Your task to perform on an android device: turn vacation reply on in the gmail app Image 0: 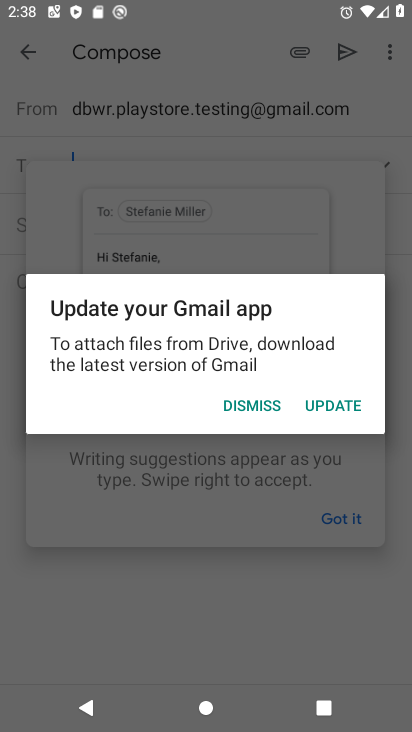
Step 0: press home button
Your task to perform on an android device: turn vacation reply on in the gmail app Image 1: 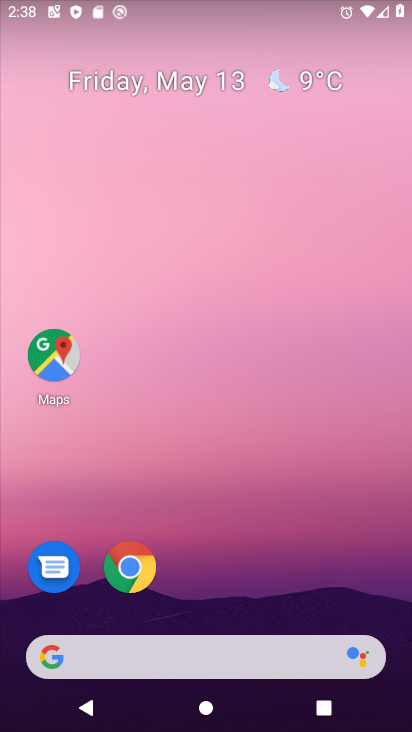
Step 1: drag from (219, 577) to (316, 57)
Your task to perform on an android device: turn vacation reply on in the gmail app Image 2: 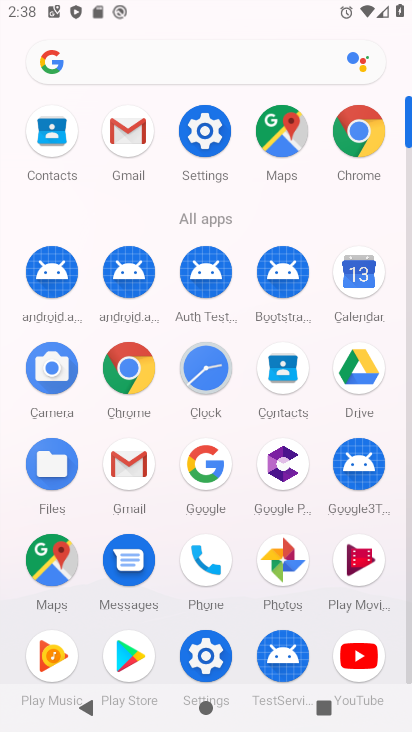
Step 2: click (135, 475)
Your task to perform on an android device: turn vacation reply on in the gmail app Image 3: 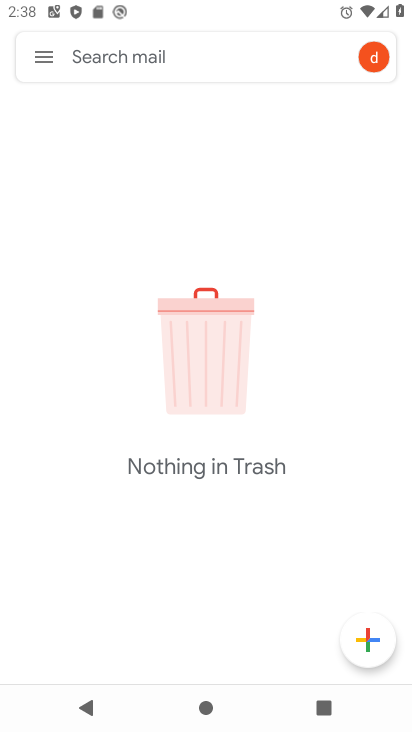
Step 3: click (51, 53)
Your task to perform on an android device: turn vacation reply on in the gmail app Image 4: 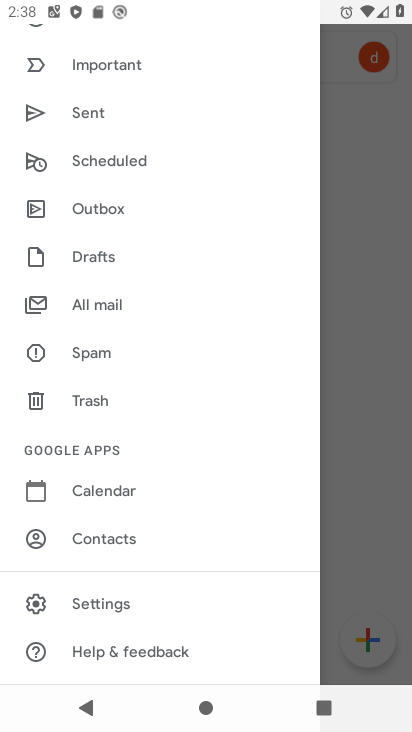
Step 4: click (94, 594)
Your task to perform on an android device: turn vacation reply on in the gmail app Image 5: 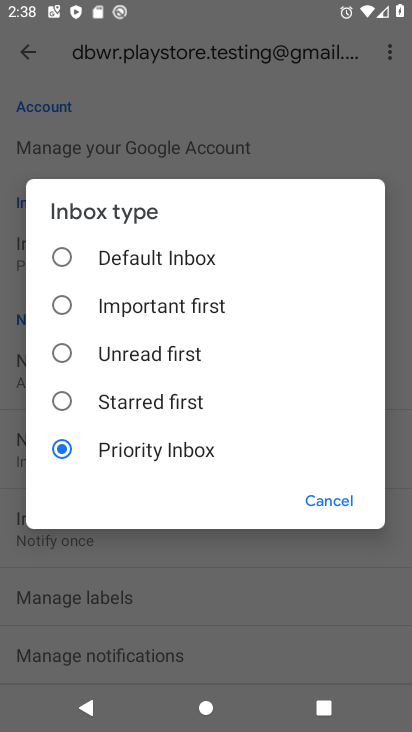
Step 5: click (337, 498)
Your task to perform on an android device: turn vacation reply on in the gmail app Image 6: 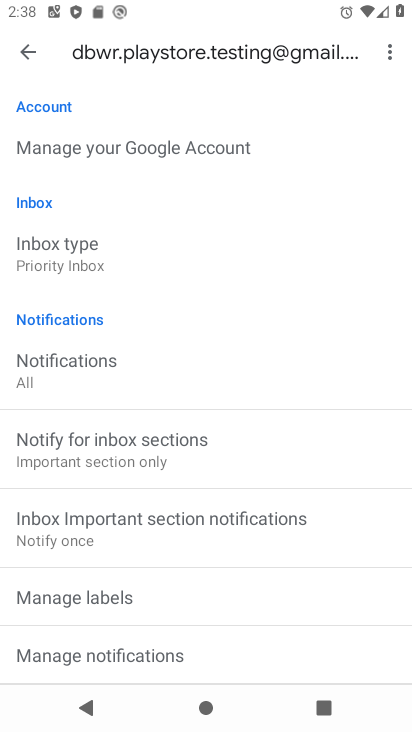
Step 6: drag from (239, 536) to (255, 394)
Your task to perform on an android device: turn vacation reply on in the gmail app Image 7: 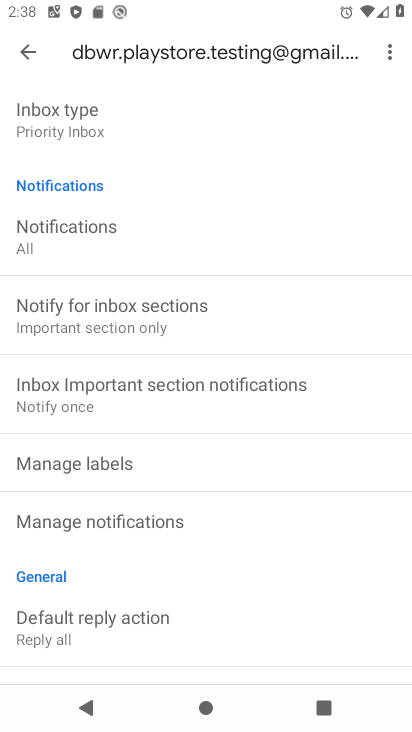
Step 7: drag from (223, 494) to (276, 207)
Your task to perform on an android device: turn vacation reply on in the gmail app Image 8: 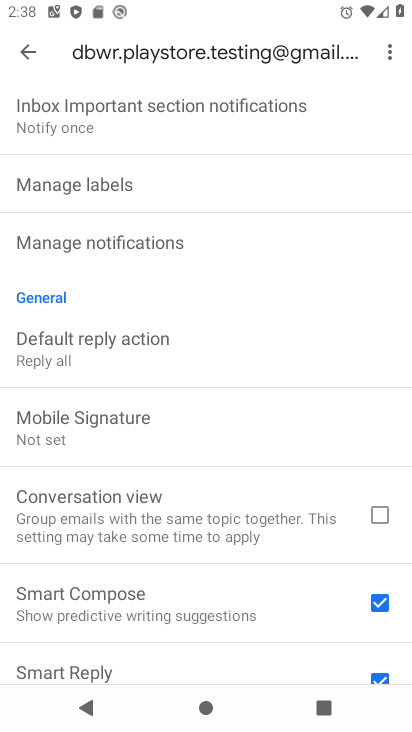
Step 8: drag from (247, 527) to (330, 155)
Your task to perform on an android device: turn vacation reply on in the gmail app Image 9: 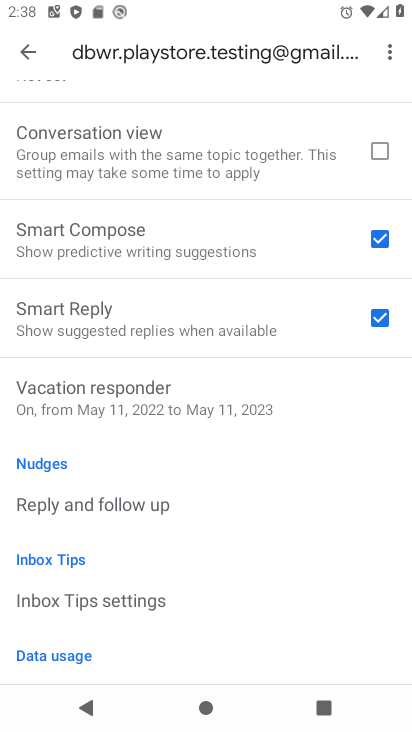
Step 9: click (191, 417)
Your task to perform on an android device: turn vacation reply on in the gmail app Image 10: 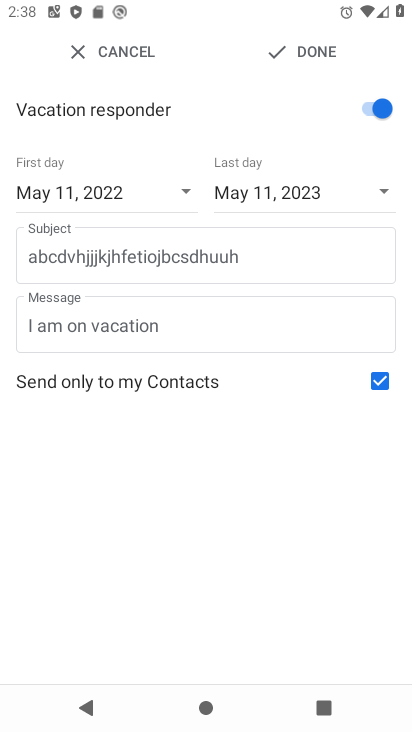
Step 10: task complete